Your task to perform on an android device: turn off airplane mode Image 0: 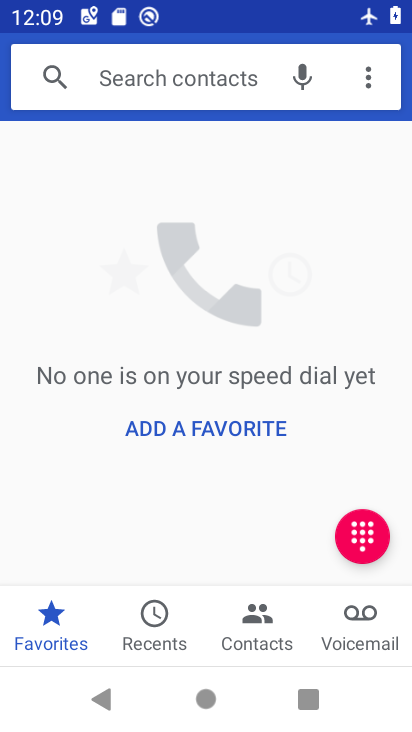
Step 0: press back button
Your task to perform on an android device: turn off airplane mode Image 1: 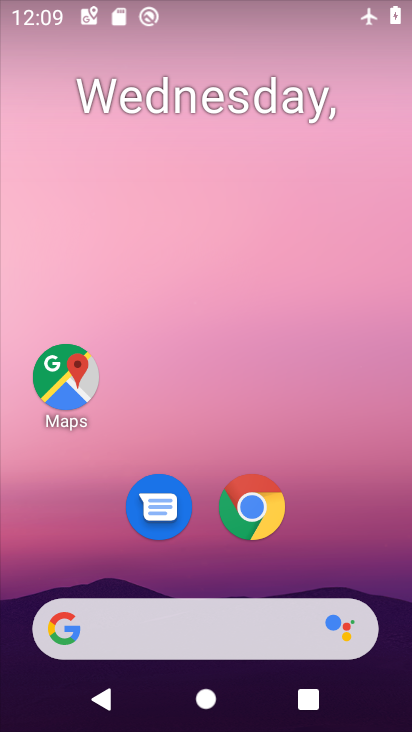
Step 1: drag from (262, 521) to (197, 121)
Your task to perform on an android device: turn off airplane mode Image 2: 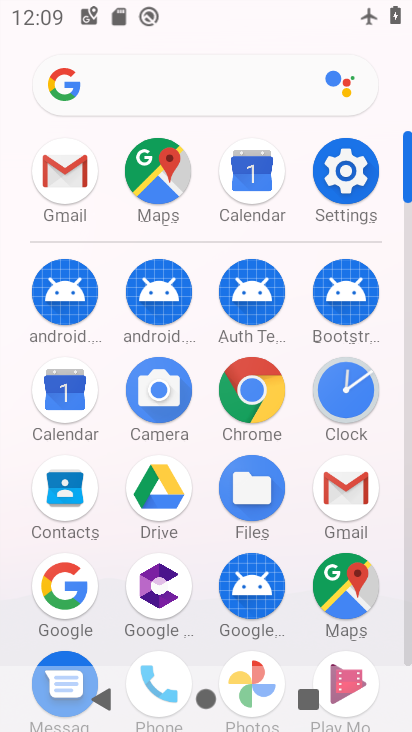
Step 2: click (362, 165)
Your task to perform on an android device: turn off airplane mode Image 3: 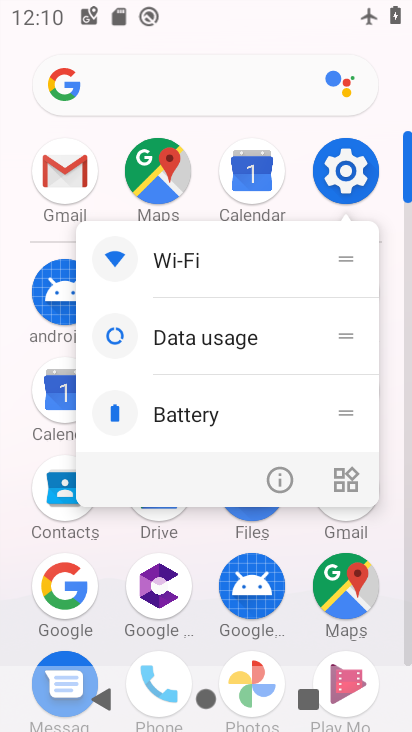
Step 3: click (178, 267)
Your task to perform on an android device: turn off airplane mode Image 4: 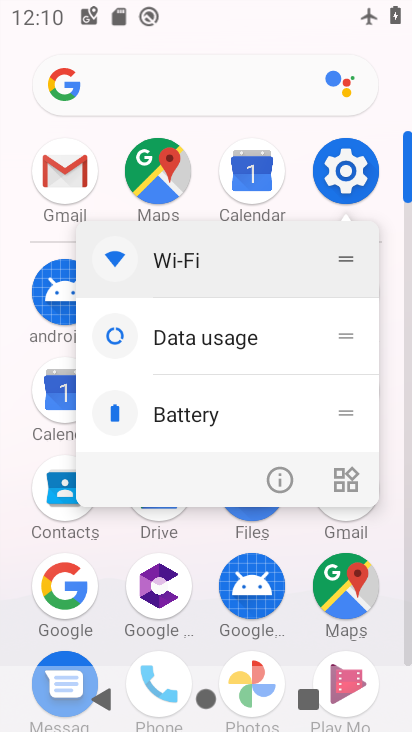
Step 4: click (174, 263)
Your task to perform on an android device: turn off airplane mode Image 5: 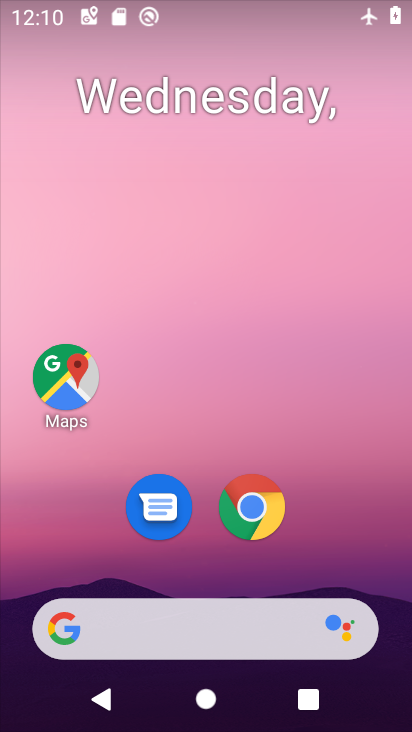
Step 5: drag from (209, 254) to (196, 189)
Your task to perform on an android device: turn off airplane mode Image 6: 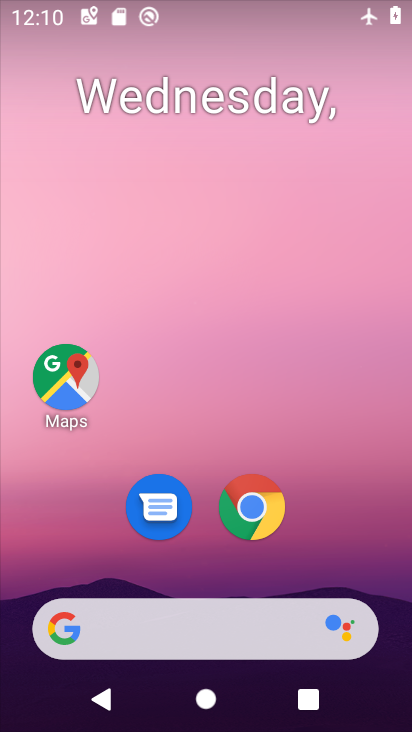
Step 6: drag from (267, 628) to (219, 136)
Your task to perform on an android device: turn off airplane mode Image 7: 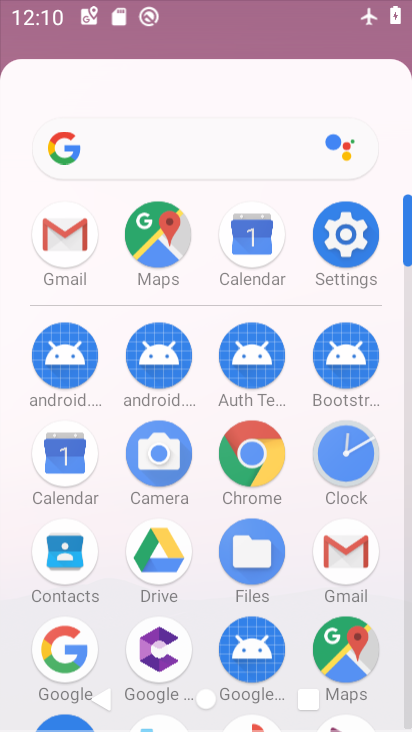
Step 7: drag from (262, 558) to (251, 107)
Your task to perform on an android device: turn off airplane mode Image 8: 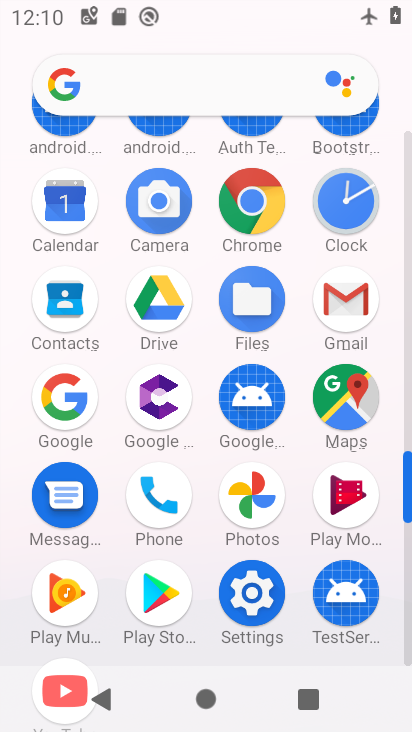
Step 8: drag from (241, 554) to (217, 133)
Your task to perform on an android device: turn off airplane mode Image 9: 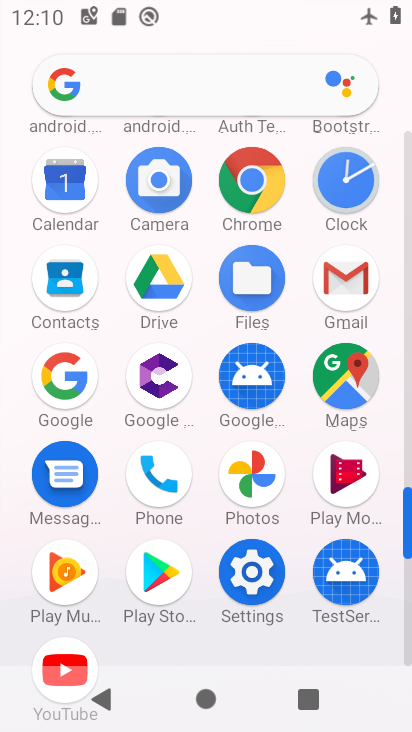
Step 9: click (268, 576)
Your task to perform on an android device: turn off airplane mode Image 10: 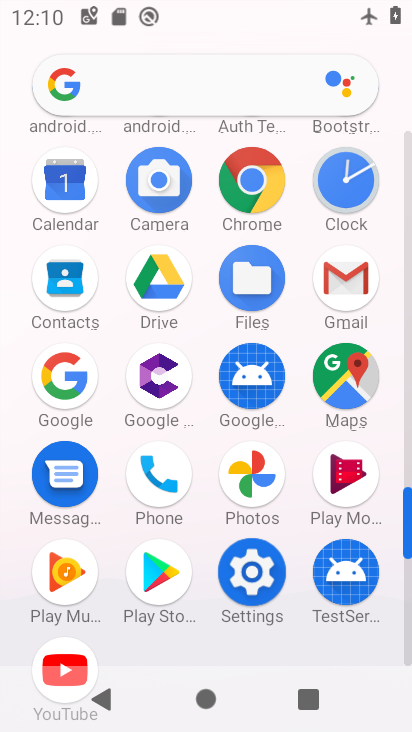
Step 10: click (265, 575)
Your task to perform on an android device: turn off airplane mode Image 11: 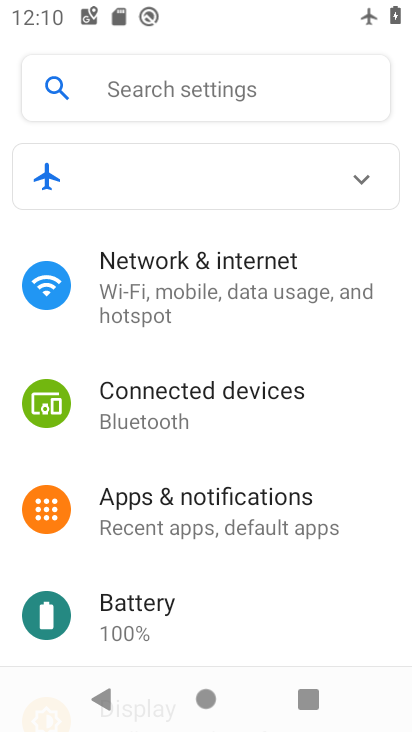
Step 11: click (189, 287)
Your task to perform on an android device: turn off airplane mode Image 12: 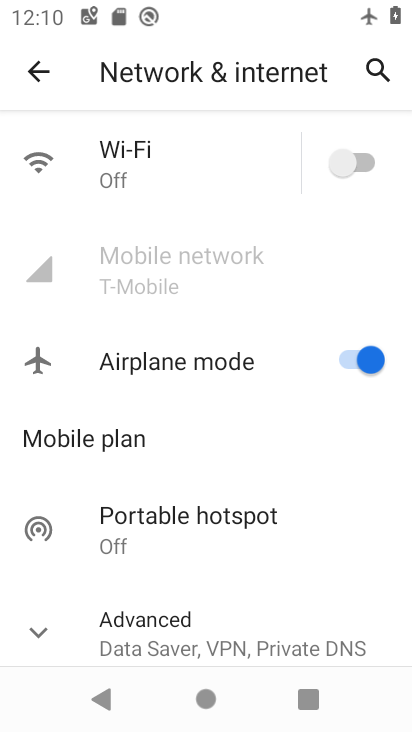
Step 12: click (359, 354)
Your task to perform on an android device: turn off airplane mode Image 13: 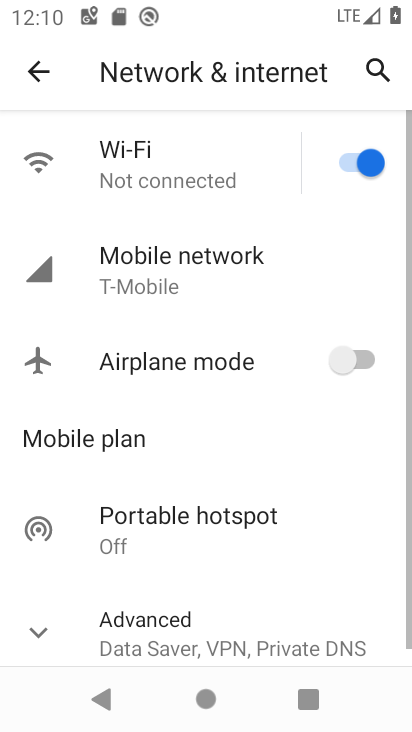
Step 13: click (370, 363)
Your task to perform on an android device: turn off airplane mode Image 14: 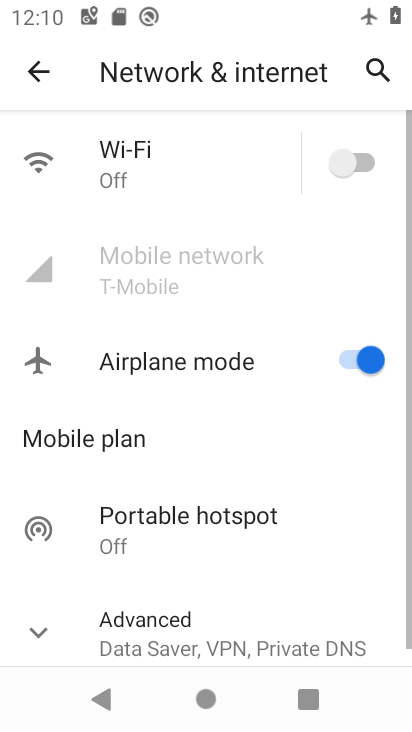
Step 14: task complete